Your task to perform on an android device: Go to Amazon Image 0: 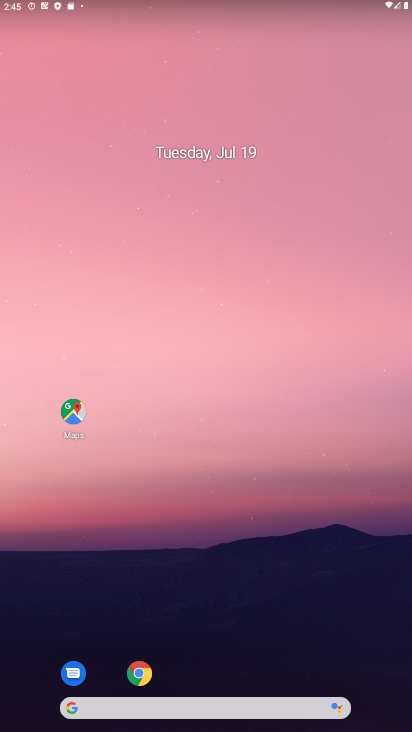
Step 0: click (139, 673)
Your task to perform on an android device: Go to Amazon Image 1: 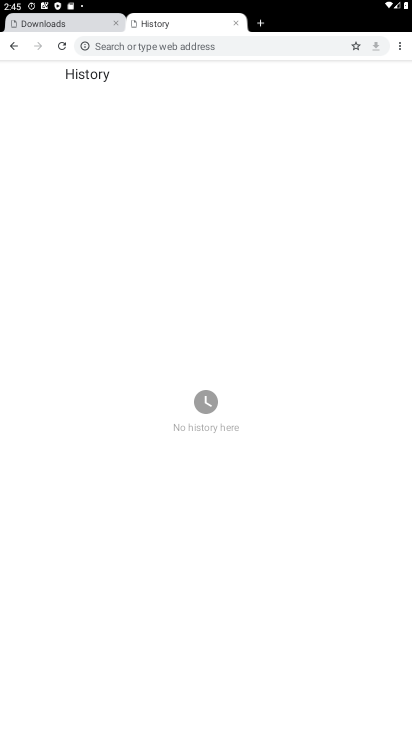
Step 1: click (235, 23)
Your task to perform on an android device: Go to Amazon Image 2: 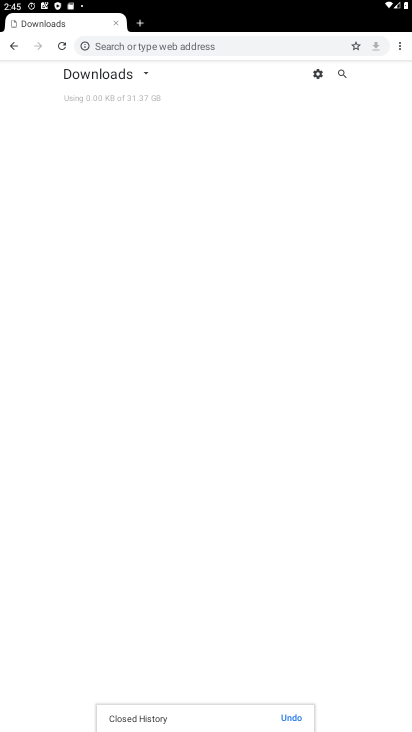
Step 2: click (139, 22)
Your task to perform on an android device: Go to Amazon Image 3: 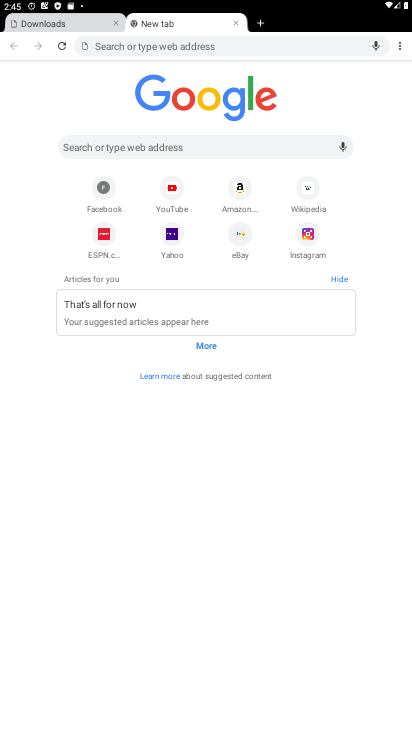
Step 3: click (113, 21)
Your task to perform on an android device: Go to Amazon Image 4: 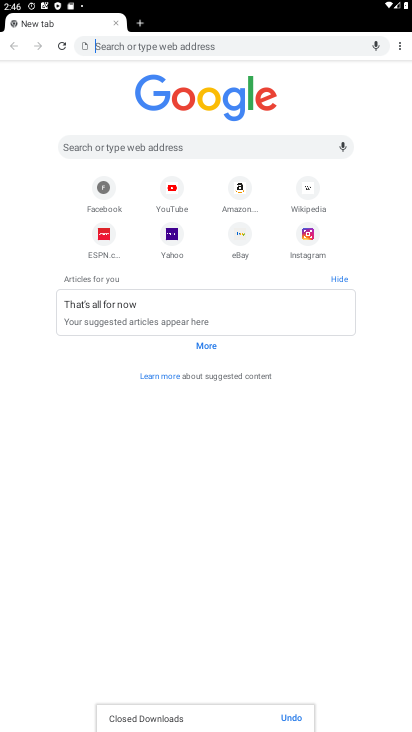
Step 4: click (231, 196)
Your task to perform on an android device: Go to Amazon Image 5: 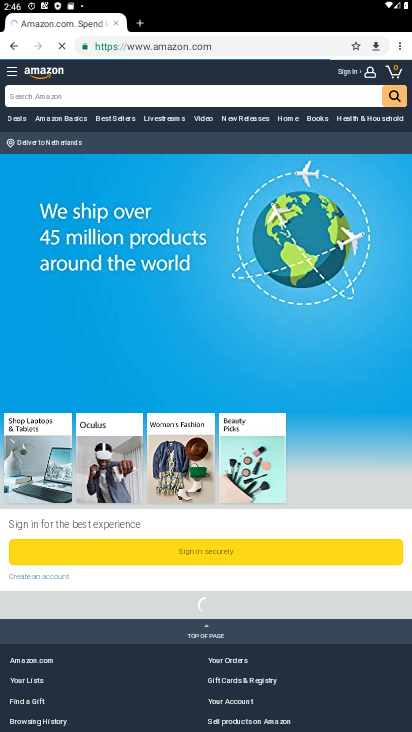
Step 5: task complete